Your task to perform on an android device: Go to display settings Image 0: 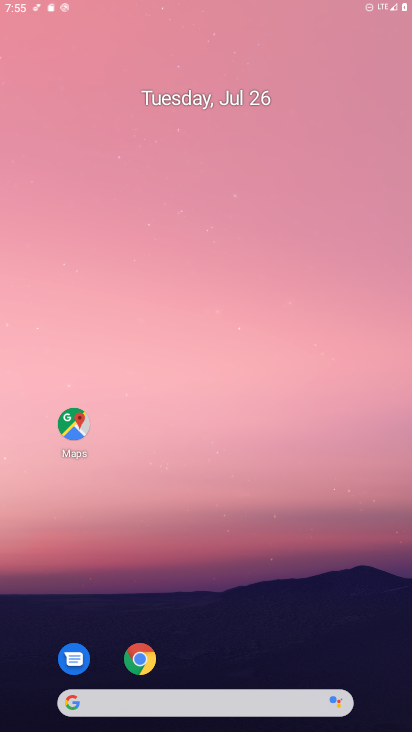
Step 0: click (162, 62)
Your task to perform on an android device: Go to display settings Image 1: 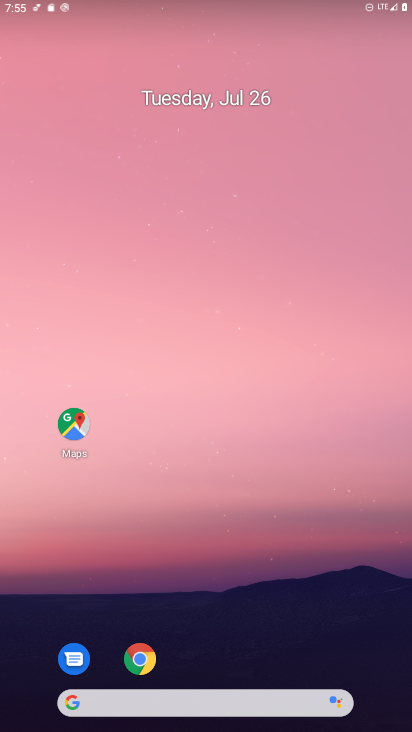
Step 1: click (207, 384)
Your task to perform on an android device: Go to display settings Image 2: 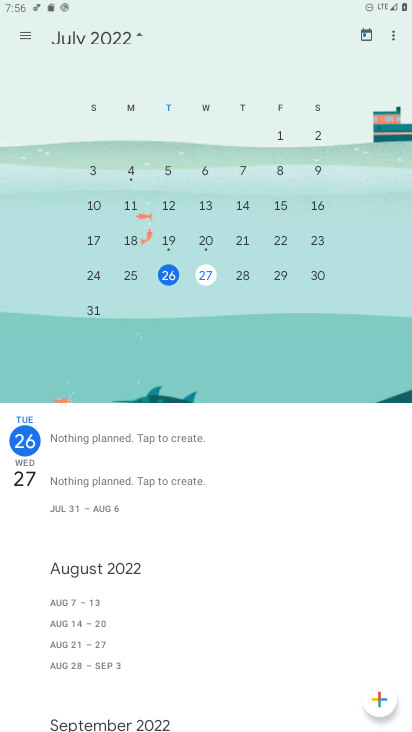
Step 2: press home button
Your task to perform on an android device: Go to display settings Image 3: 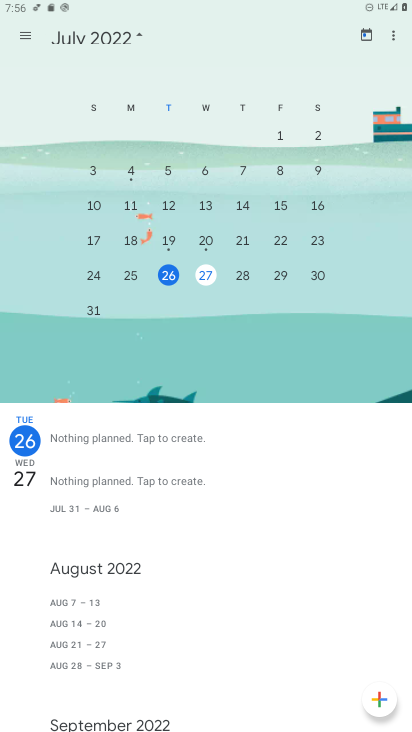
Step 3: press home button
Your task to perform on an android device: Go to display settings Image 4: 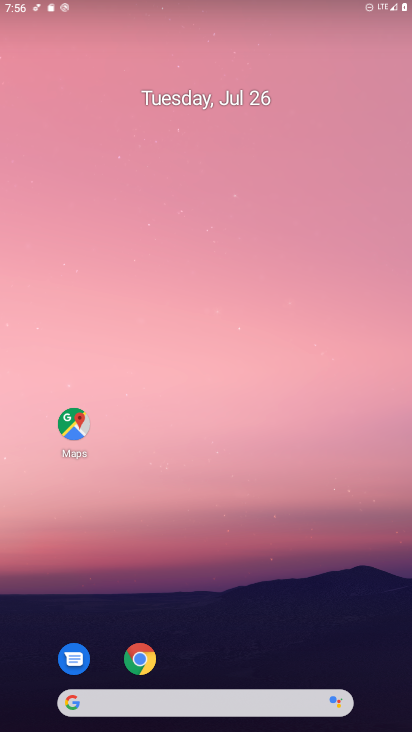
Step 4: drag from (171, 597) to (234, 30)
Your task to perform on an android device: Go to display settings Image 5: 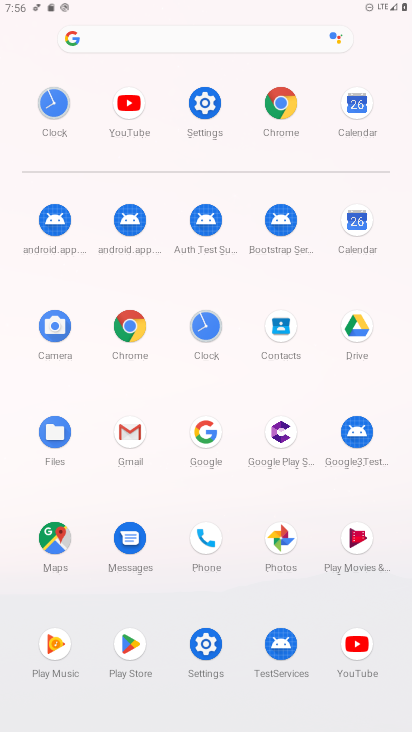
Step 5: click (207, 104)
Your task to perform on an android device: Go to display settings Image 6: 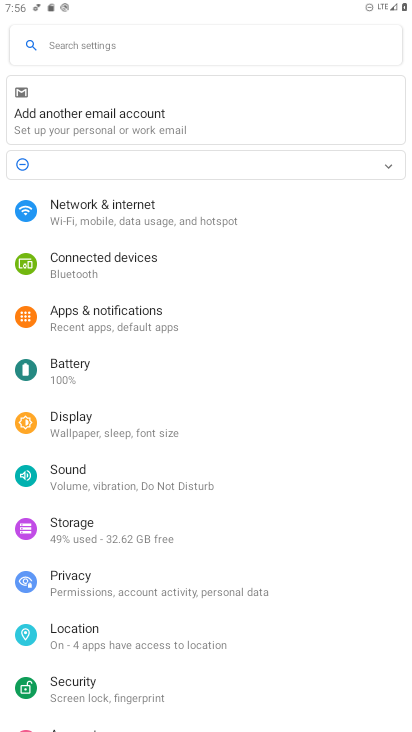
Step 6: drag from (97, 601) to (113, 327)
Your task to perform on an android device: Go to display settings Image 7: 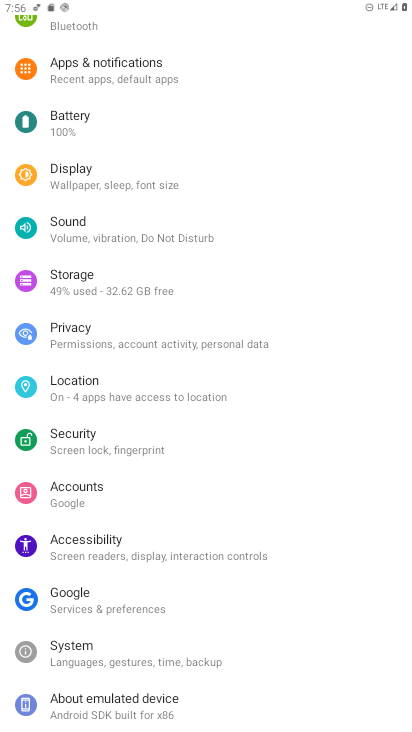
Step 7: click (90, 170)
Your task to perform on an android device: Go to display settings Image 8: 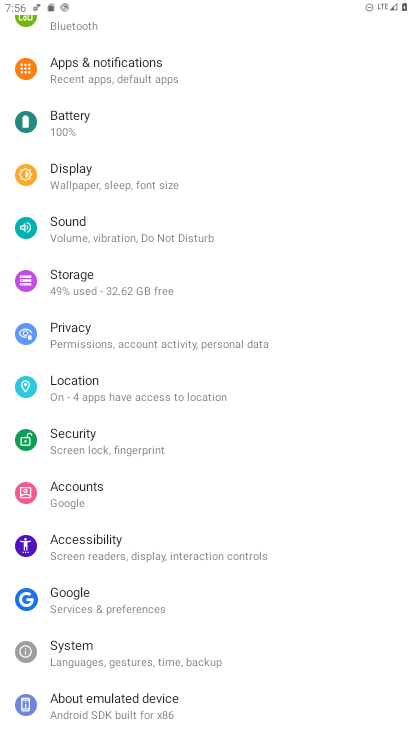
Step 8: click (118, 174)
Your task to perform on an android device: Go to display settings Image 9: 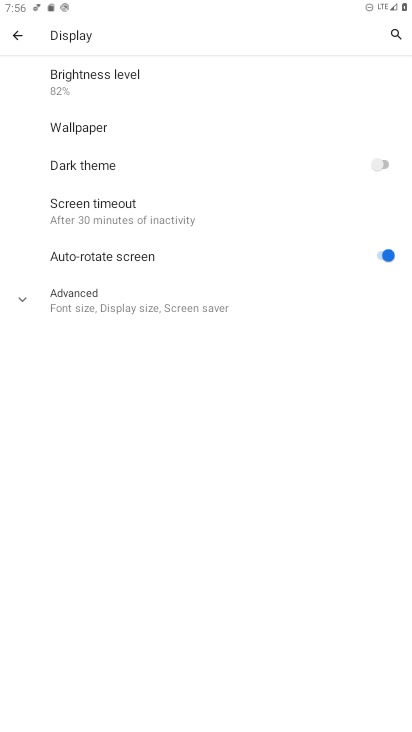
Step 9: task complete